Your task to perform on an android device: open the mobile data screen to see how much data has been used Image 0: 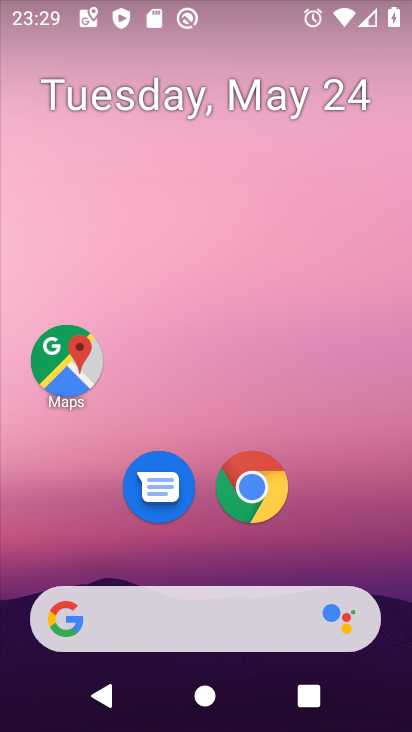
Step 0: drag from (214, 522) to (239, 78)
Your task to perform on an android device: open the mobile data screen to see how much data has been used Image 1: 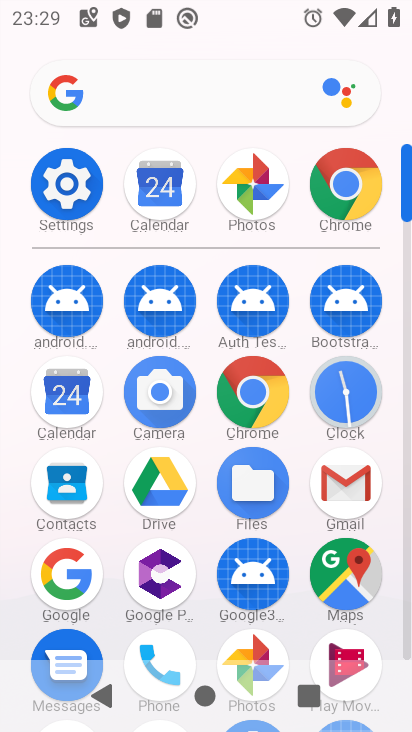
Step 1: click (59, 163)
Your task to perform on an android device: open the mobile data screen to see how much data has been used Image 2: 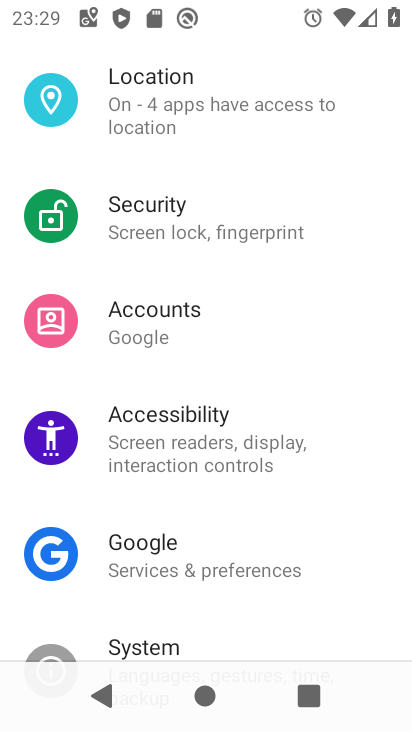
Step 2: drag from (239, 243) to (186, 673)
Your task to perform on an android device: open the mobile data screen to see how much data has been used Image 3: 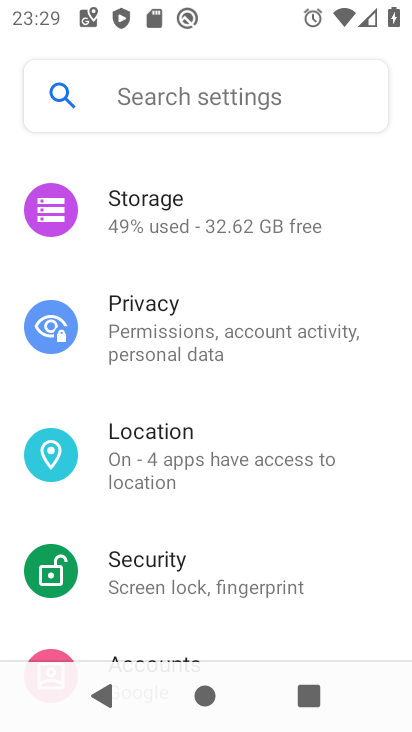
Step 3: drag from (169, 283) to (166, 724)
Your task to perform on an android device: open the mobile data screen to see how much data has been used Image 4: 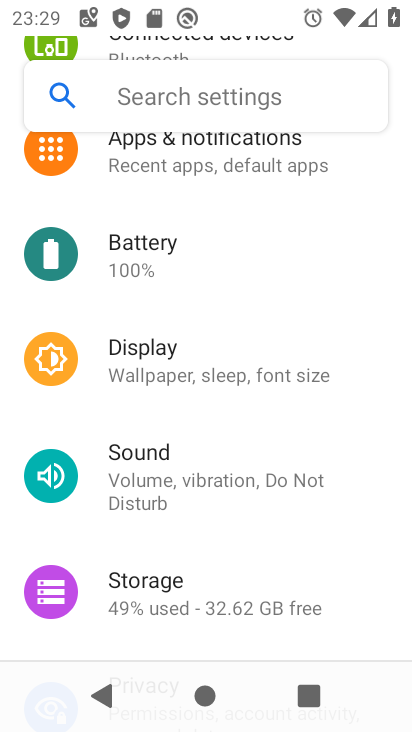
Step 4: drag from (154, 200) to (139, 727)
Your task to perform on an android device: open the mobile data screen to see how much data has been used Image 5: 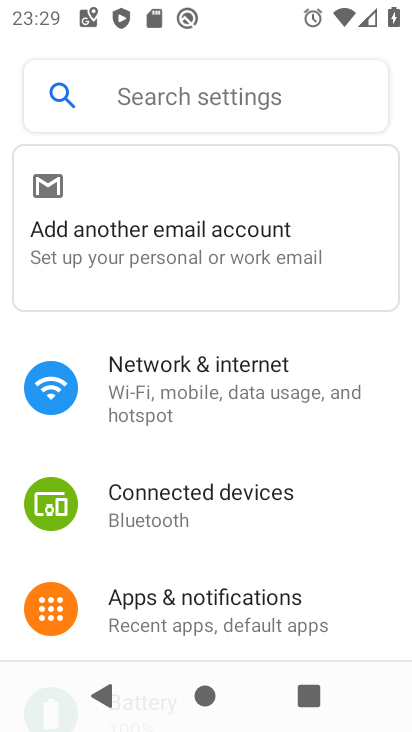
Step 5: click (163, 395)
Your task to perform on an android device: open the mobile data screen to see how much data has been used Image 6: 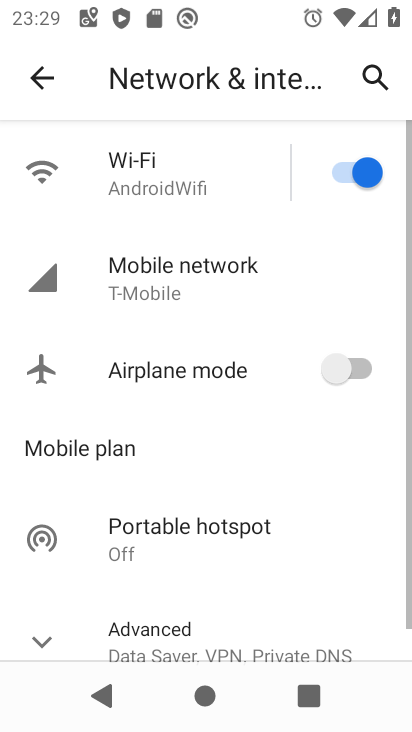
Step 6: click (169, 296)
Your task to perform on an android device: open the mobile data screen to see how much data has been used Image 7: 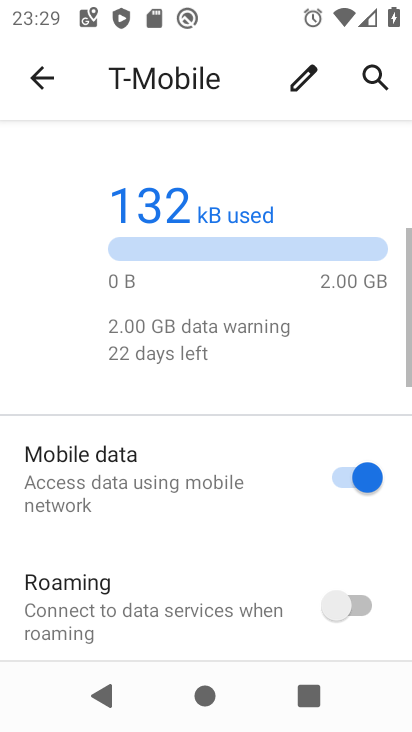
Step 7: drag from (199, 607) to (264, 41)
Your task to perform on an android device: open the mobile data screen to see how much data has been used Image 8: 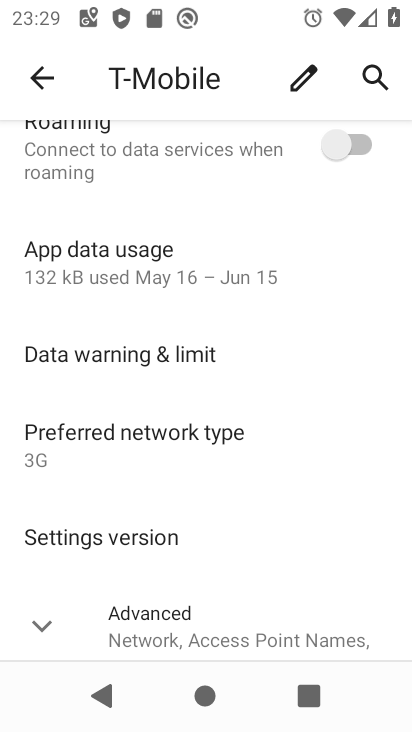
Step 8: drag from (120, 362) to (158, 587)
Your task to perform on an android device: open the mobile data screen to see how much data has been used Image 9: 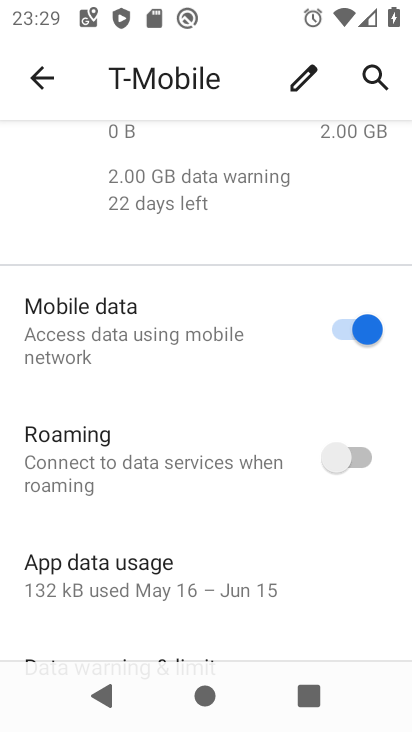
Step 9: click (145, 583)
Your task to perform on an android device: open the mobile data screen to see how much data has been used Image 10: 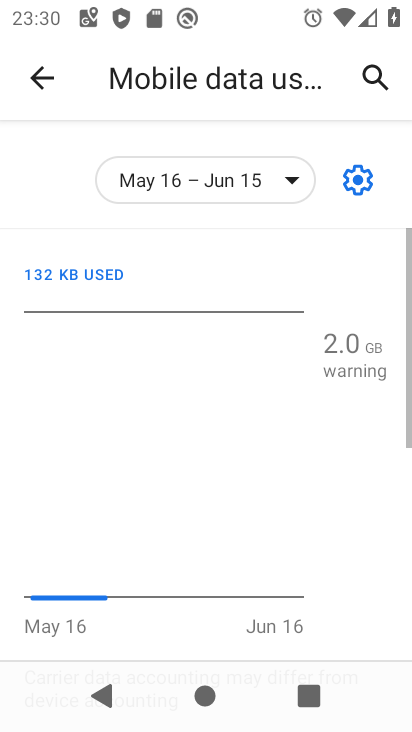
Step 10: task complete